Your task to perform on an android device: Add "usb-c to usb-b" to the cart on newegg.com Image 0: 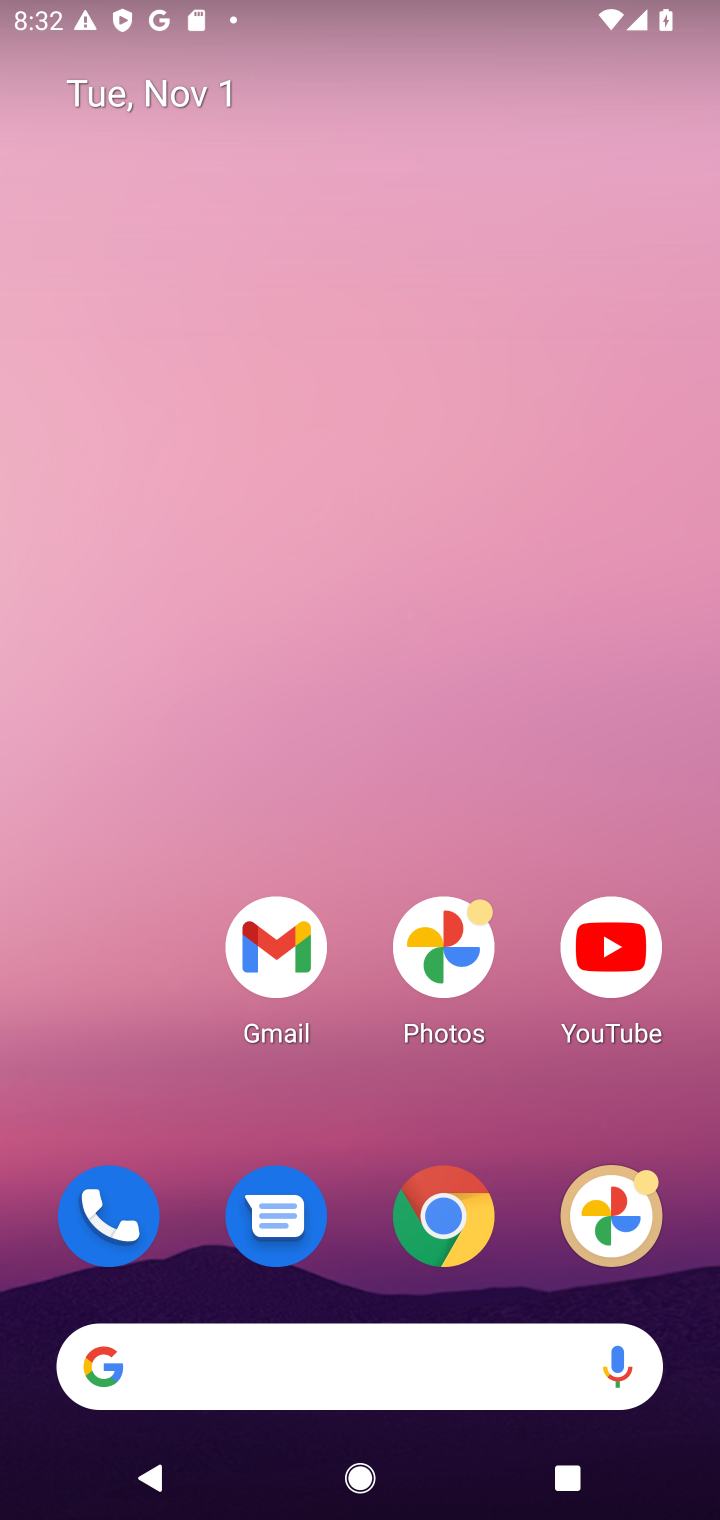
Step 0: click (461, 1201)
Your task to perform on an android device: Add "usb-c to usb-b" to the cart on newegg.com Image 1: 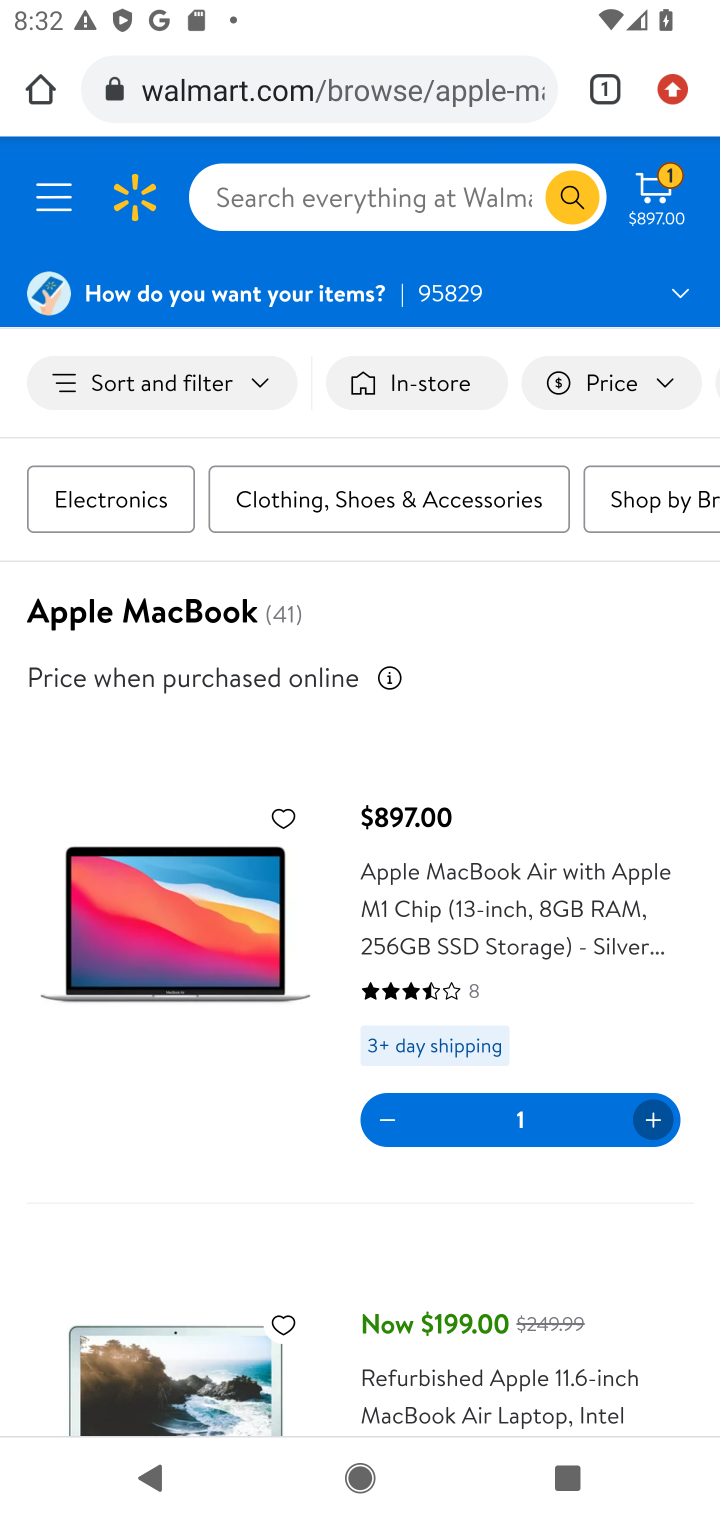
Step 1: click (333, 85)
Your task to perform on an android device: Add "usb-c to usb-b" to the cart on newegg.com Image 2: 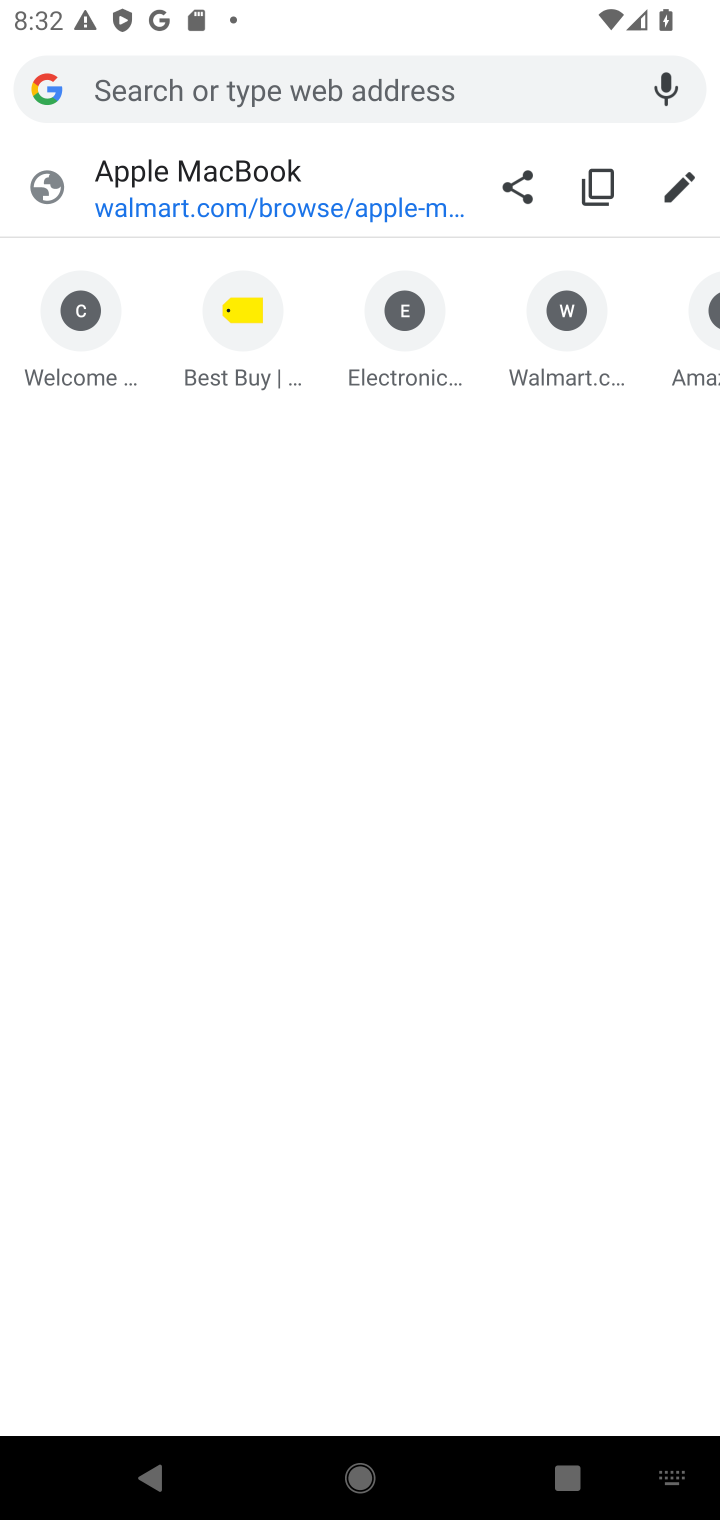
Step 2: type "newegg"
Your task to perform on an android device: Add "usb-c to usb-b" to the cart on newegg.com Image 3: 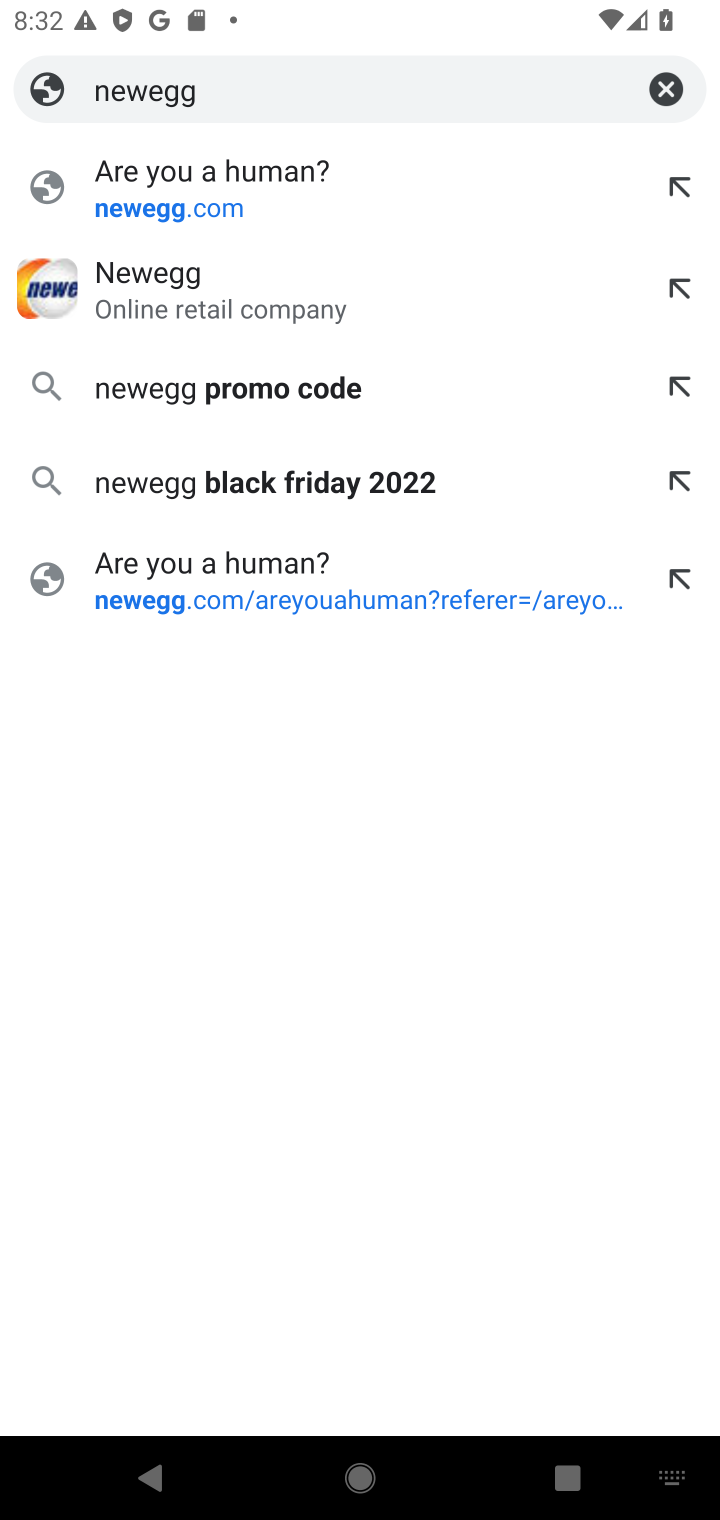
Step 3: click (179, 289)
Your task to perform on an android device: Add "usb-c to usb-b" to the cart on newegg.com Image 4: 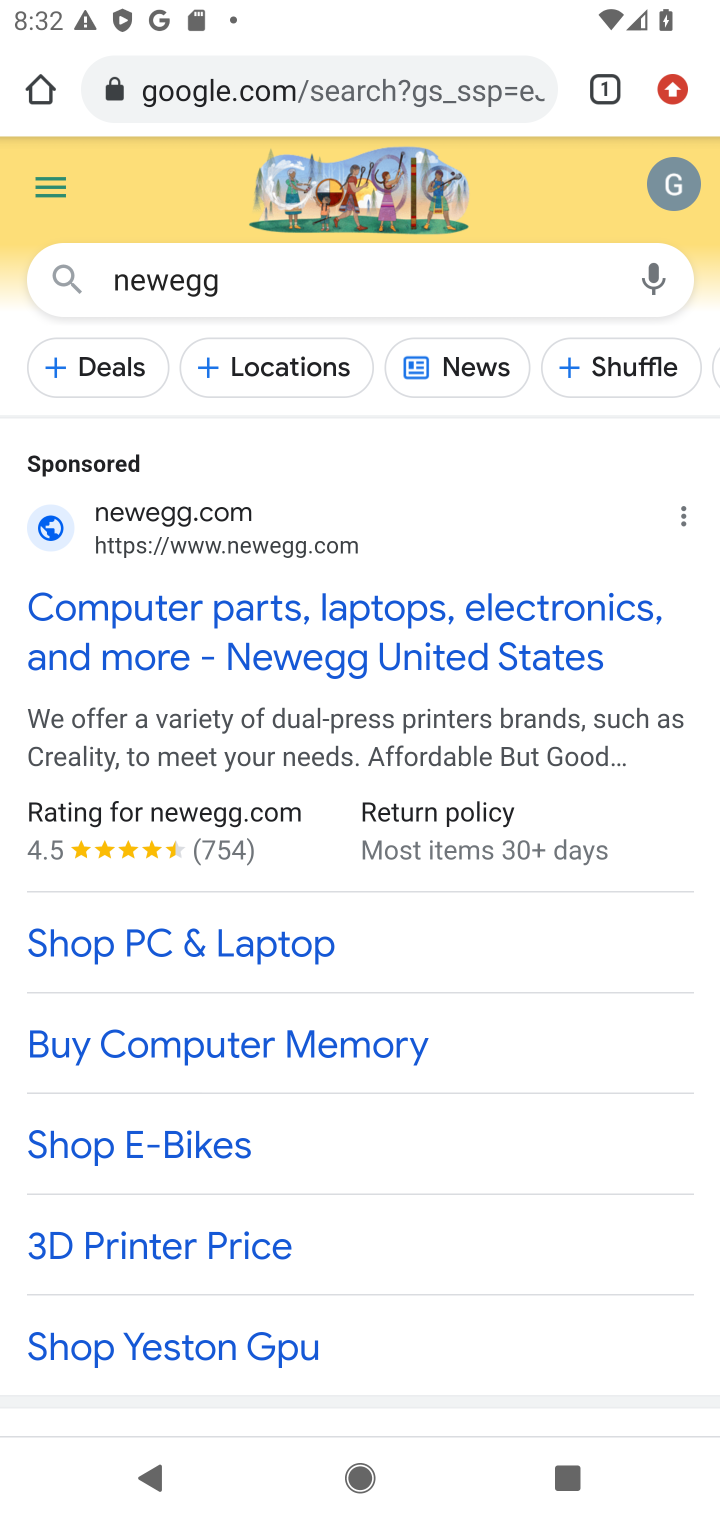
Step 4: click (233, 625)
Your task to perform on an android device: Add "usb-c to usb-b" to the cart on newegg.com Image 5: 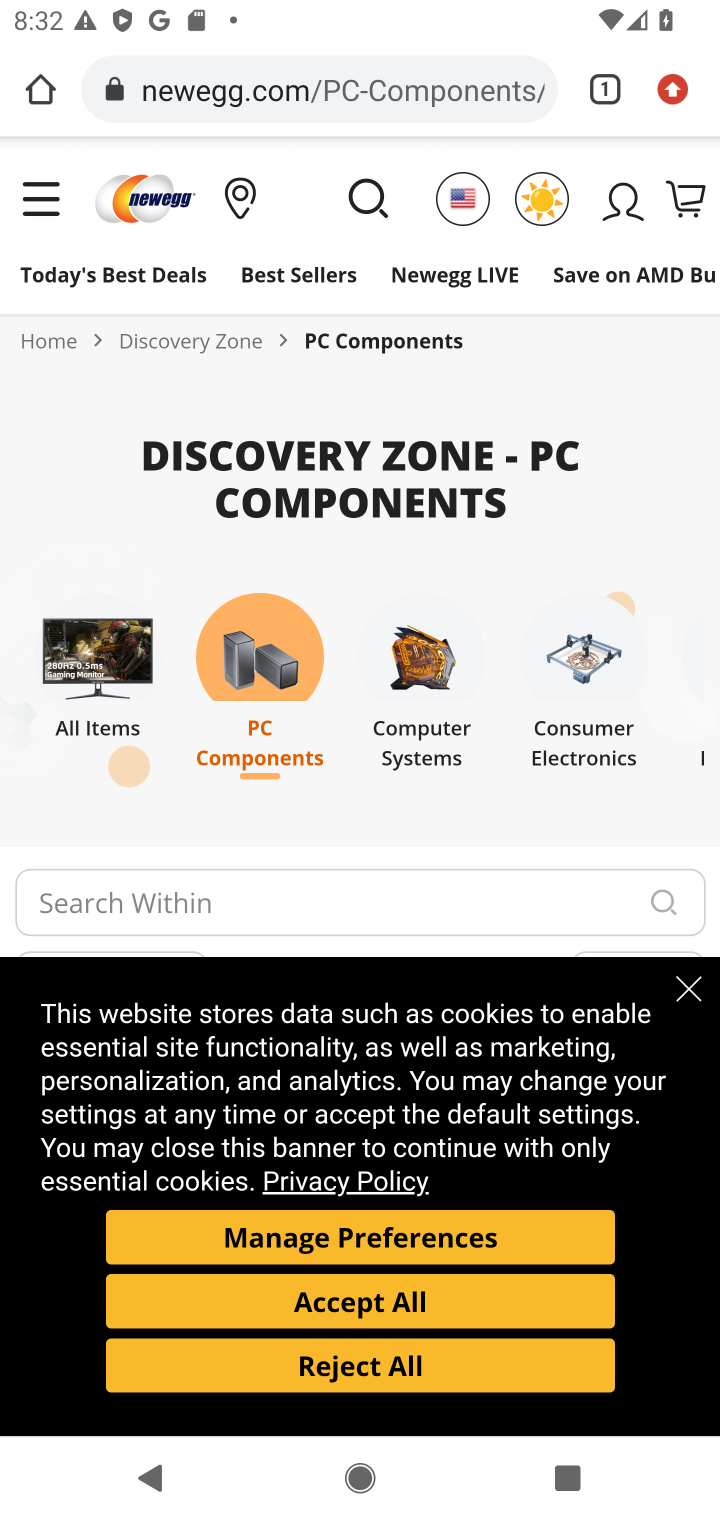
Step 5: drag from (357, 1170) to (318, 930)
Your task to perform on an android device: Add "usb-c to usb-b" to the cart on newegg.com Image 6: 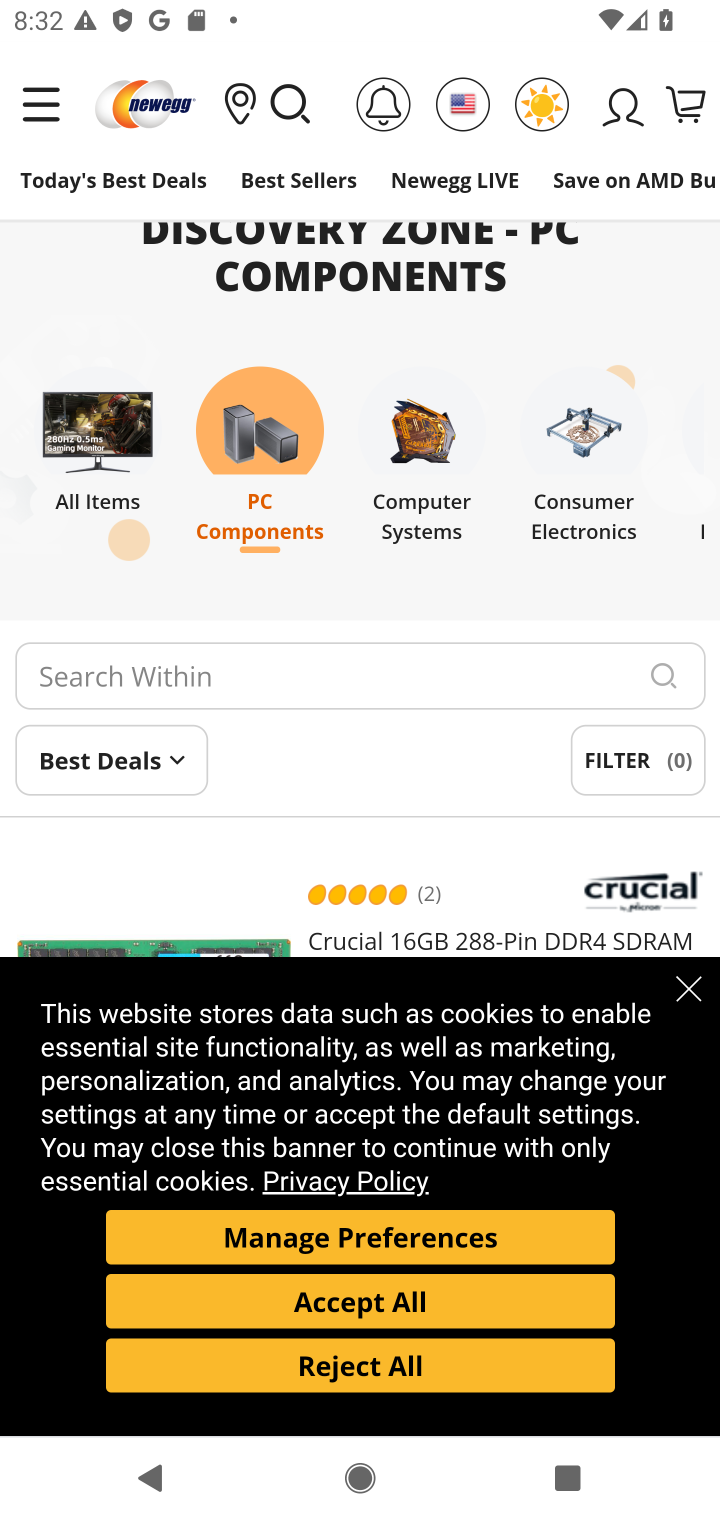
Step 6: click (683, 992)
Your task to perform on an android device: Add "usb-c to usb-b" to the cart on newegg.com Image 7: 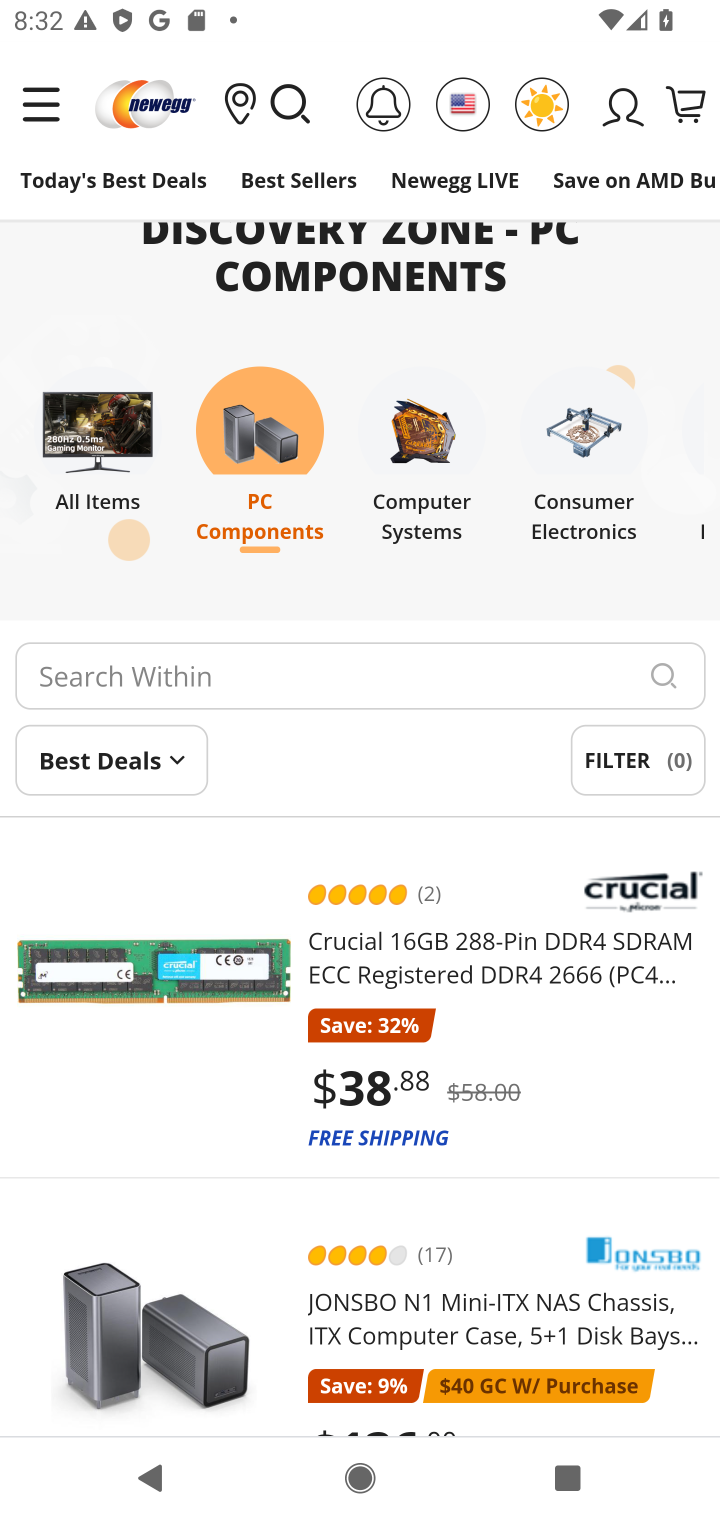
Step 7: click (274, 658)
Your task to perform on an android device: Add "usb-c to usb-b" to the cart on newegg.com Image 8: 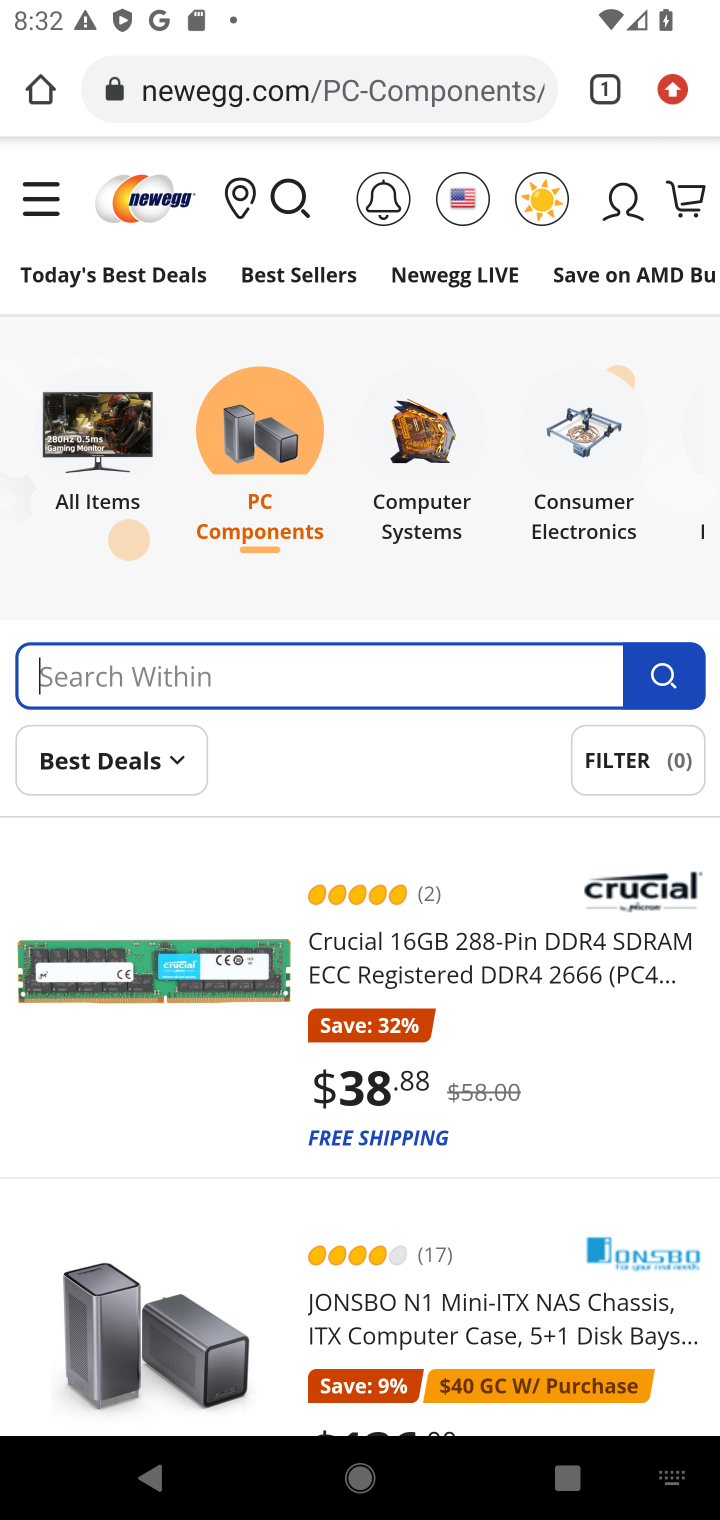
Step 8: type "usb-c to usb-b"
Your task to perform on an android device: Add "usb-c to usb-b" to the cart on newegg.com Image 9: 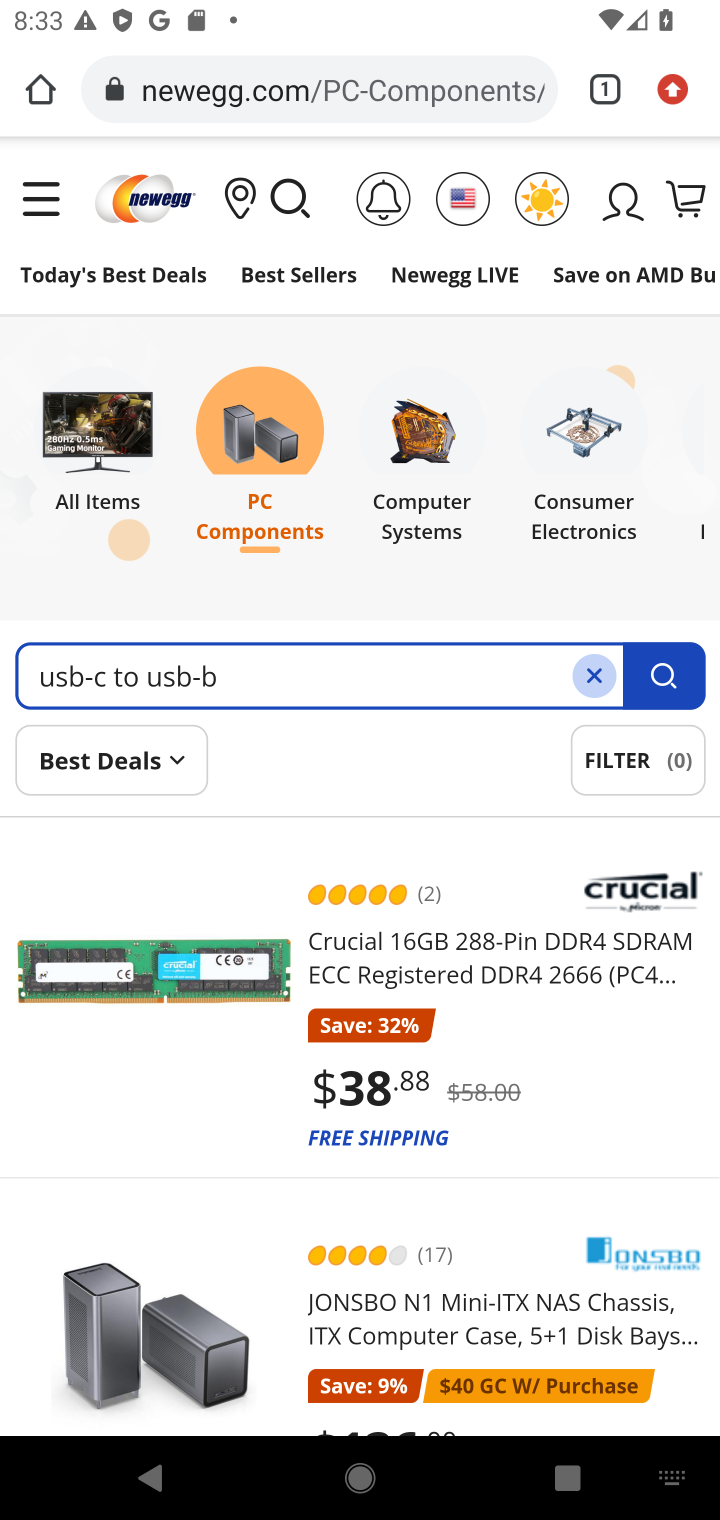
Step 9: click (650, 679)
Your task to perform on an android device: Add "usb-c to usb-b" to the cart on newegg.com Image 10: 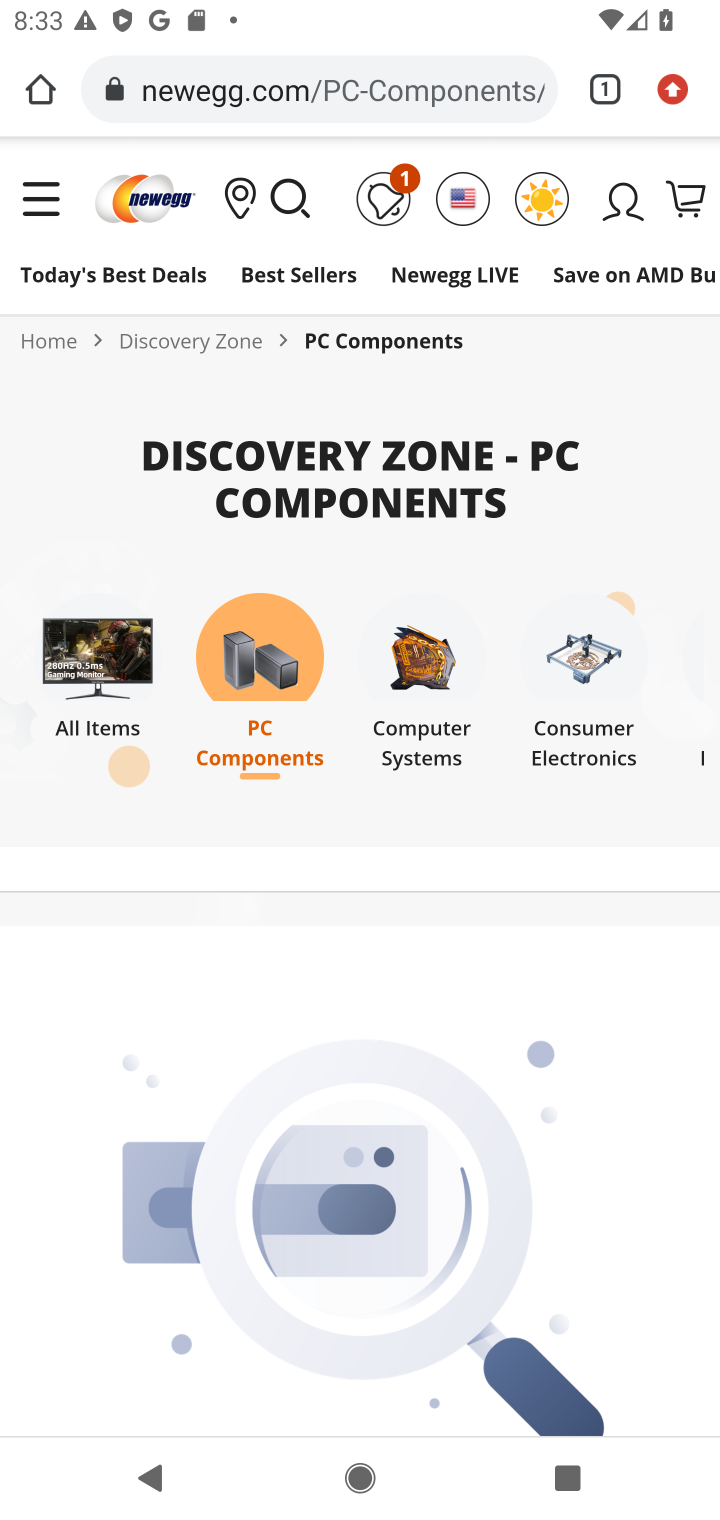
Step 10: task complete